Your task to perform on an android device: turn off priority inbox in the gmail app Image 0: 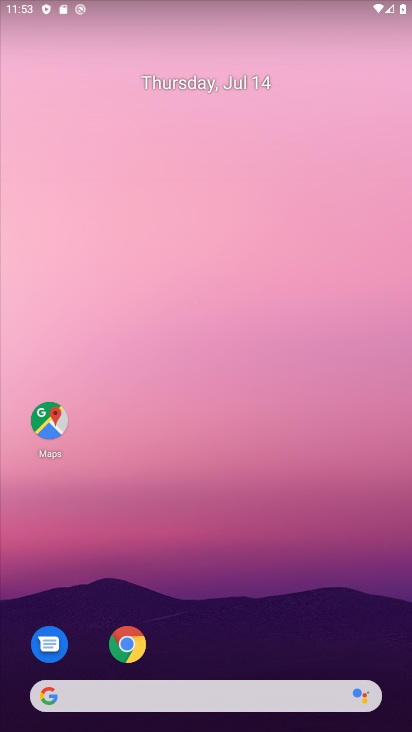
Step 0: drag from (357, 650) to (256, 81)
Your task to perform on an android device: turn off priority inbox in the gmail app Image 1: 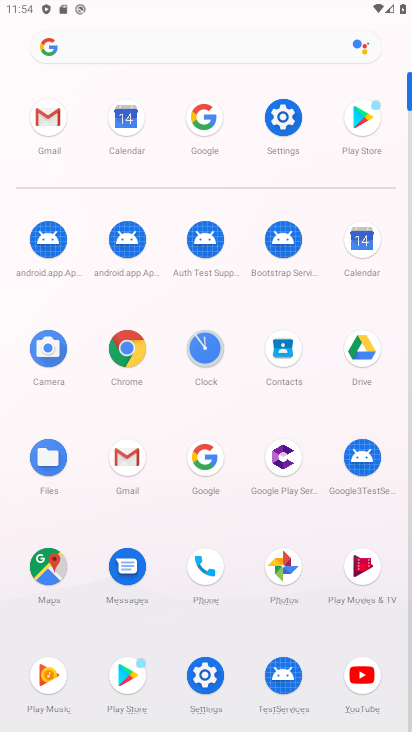
Step 1: click (126, 470)
Your task to perform on an android device: turn off priority inbox in the gmail app Image 2: 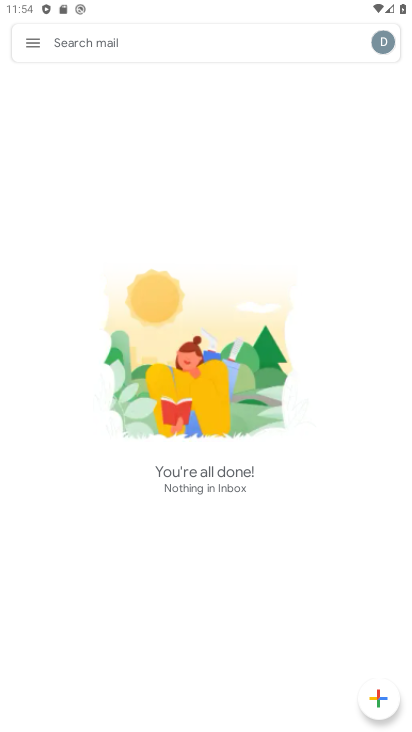
Step 2: click (32, 42)
Your task to perform on an android device: turn off priority inbox in the gmail app Image 3: 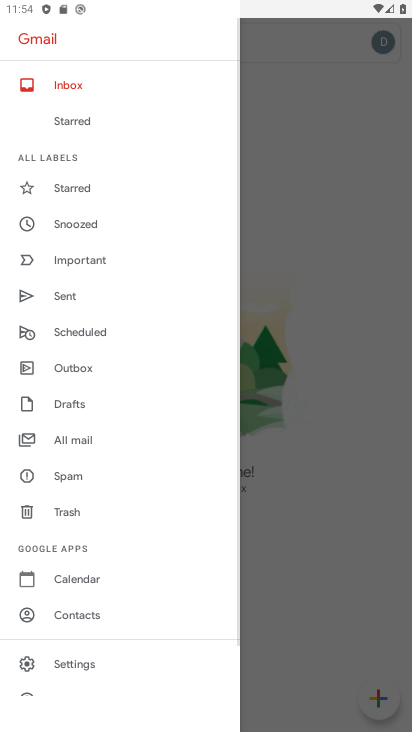
Step 3: click (67, 657)
Your task to perform on an android device: turn off priority inbox in the gmail app Image 4: 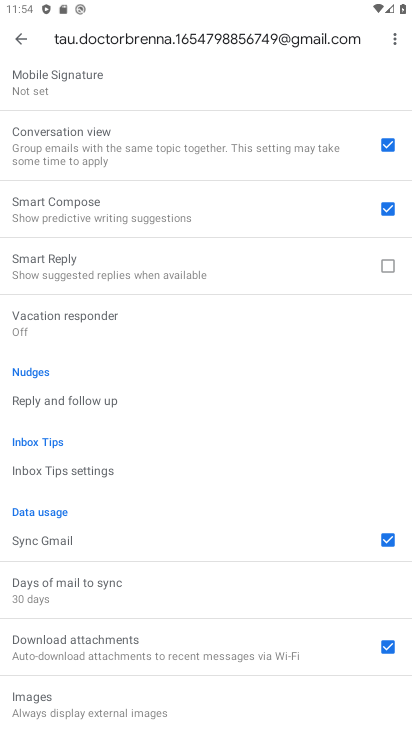
Step 4: drag from (98, 212) to (207, 657)
Your task to perform on an android device: turn off priority inbox in the gmail app Image 5: 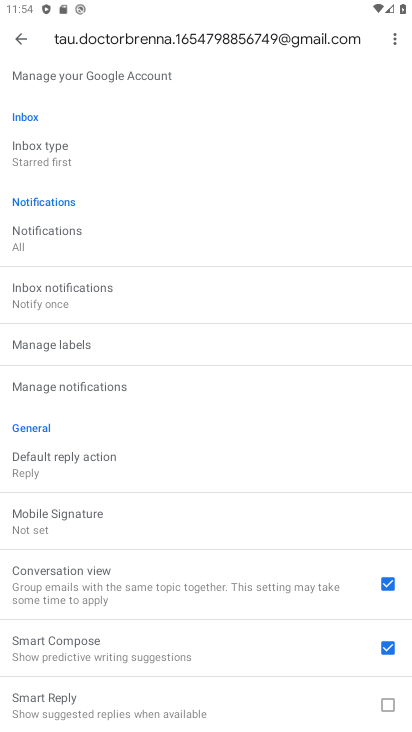
Step 5: drag from (155, 217) to (167, 619)
Your task to perform on an android device: turn off priority inbox in the gmail app Image 6: 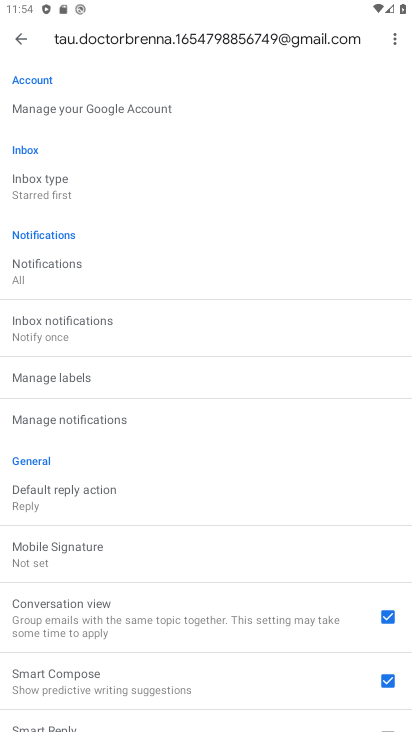
Step 6: click (65, 198)
Your task to perform on an android device: turn off priority inbox in the gmail app Image 7: 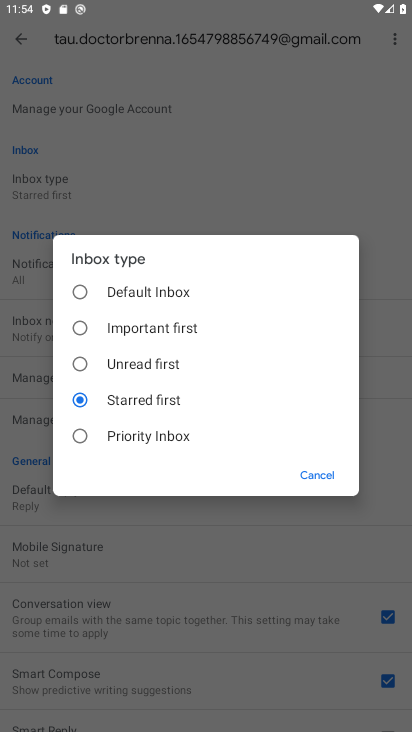
Step 7: click (90, 285)
Your task to perform on an android device: turn off priority inbox in the gmail app Image 8: 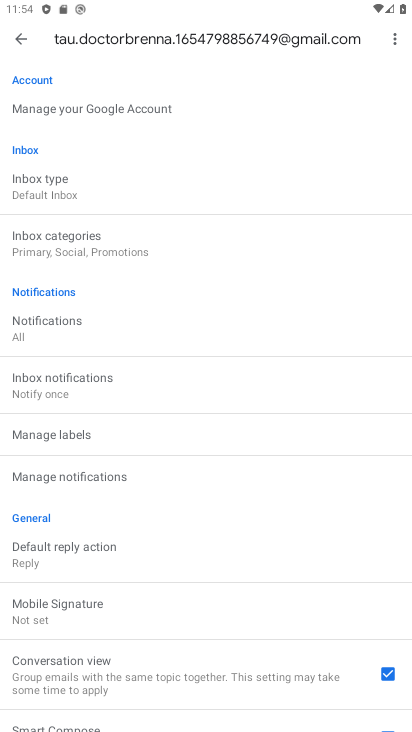
Step 8: task complete